Your task to perform on an android device: Turn off the flashlight Image 0: 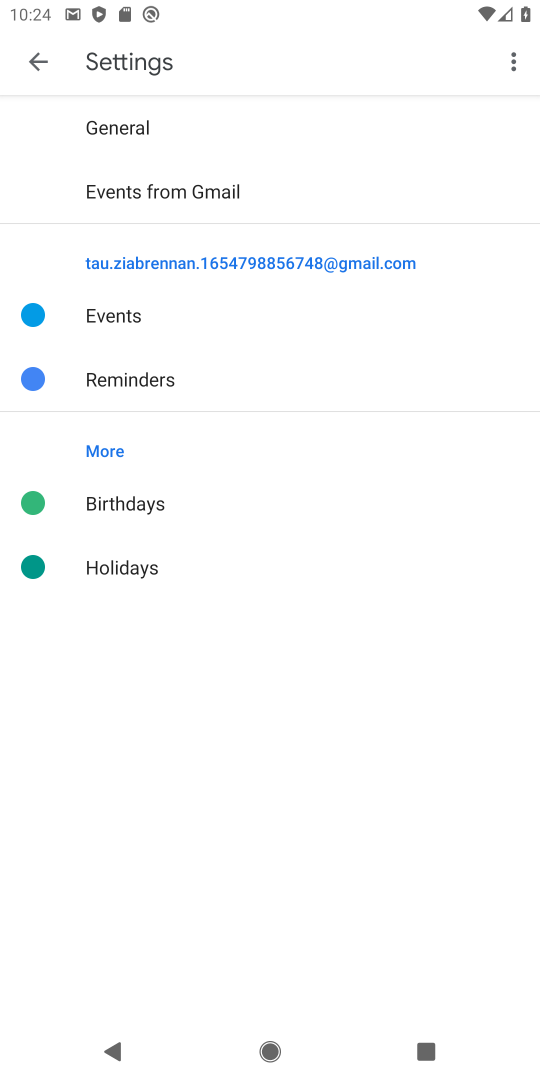
Step 0: press back button
Your task to perform on an android device: Turn off the flashlight Image 1: 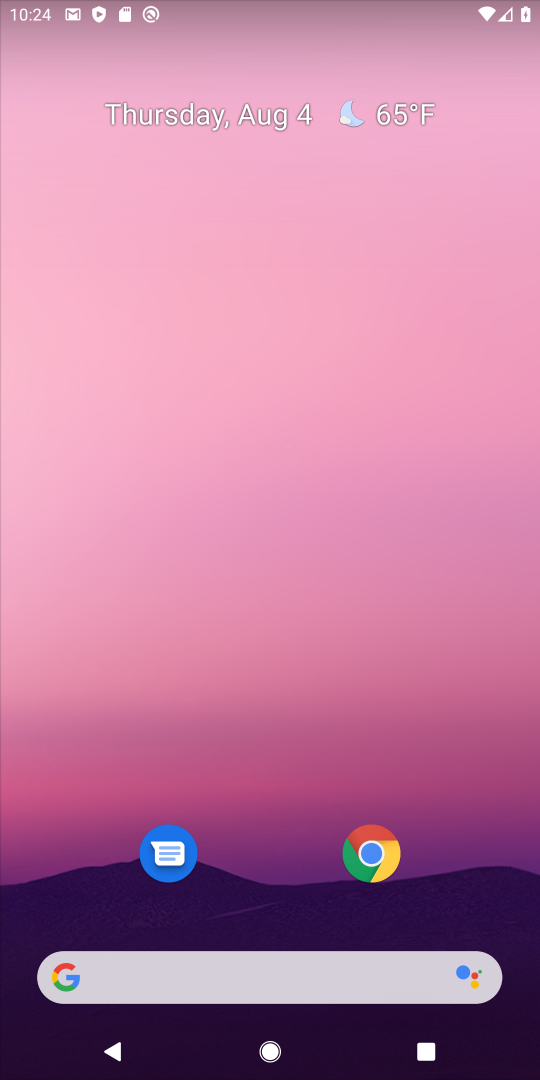
Step 1: drag from (277, 906) to (277, 43)
Your task to perform on an android device: Turn off the flashlight Image 2: 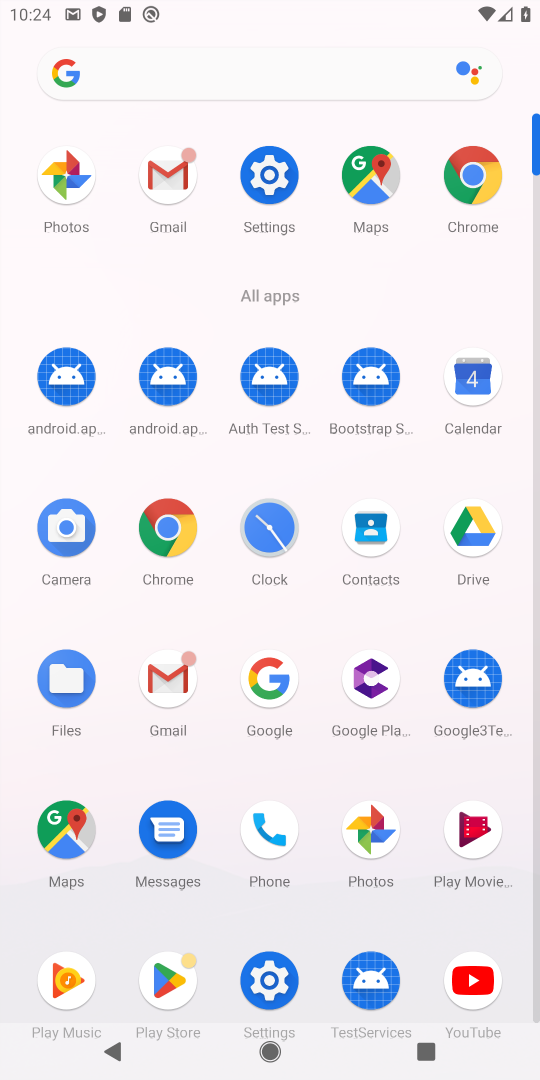
Step 2: click (276, 174)
Your task to perform on an android device: Turn off the flashlight Image 3: 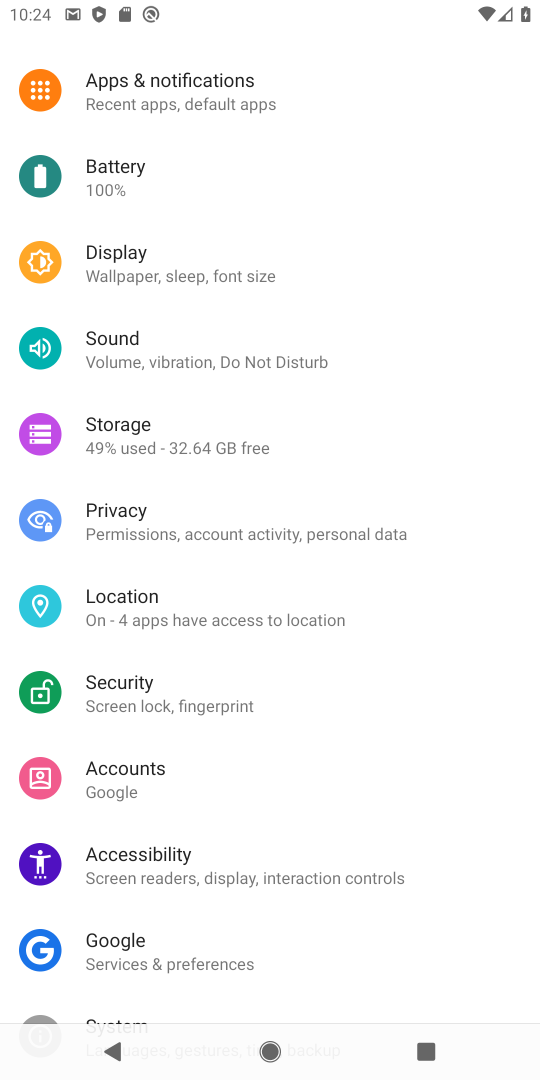
Step 3: task complete